Your task to perform on an android device: Open Google Maps and go to "Timeline" Image 0: 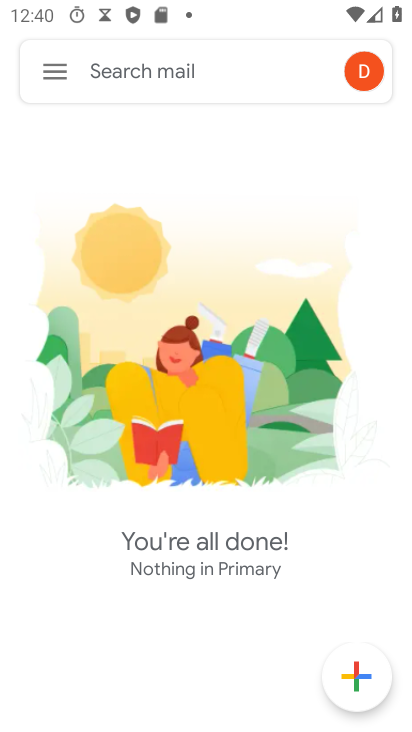
Step 0: click (56, 64)
Your task to perform on an android device: Open Google Maps and go to "Timeline" Image 1: 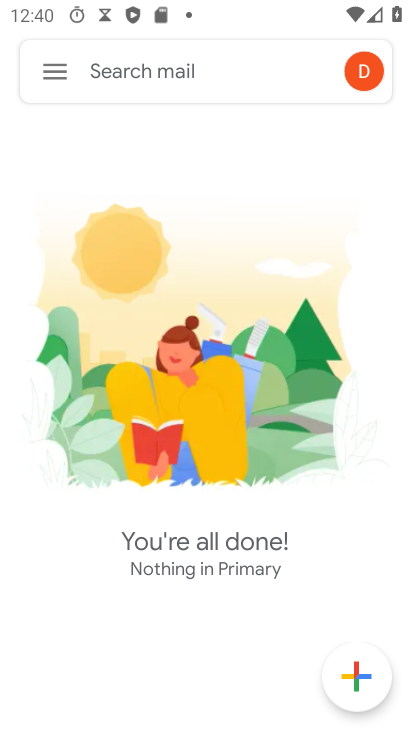
Step 1: click (56, 64)
Your task to perform on an android device: Open Google Maps and go to "Timeline" Image 2: 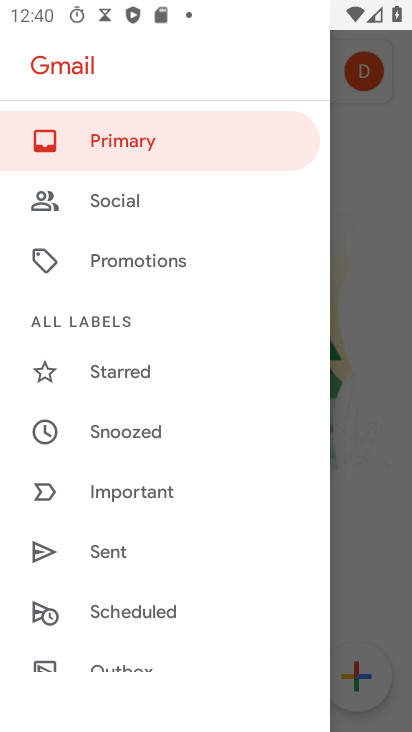
Step 2: click (341, 392)
Your task to perform on an android device: Open Google Maps and go to "Timeline" Image 3: 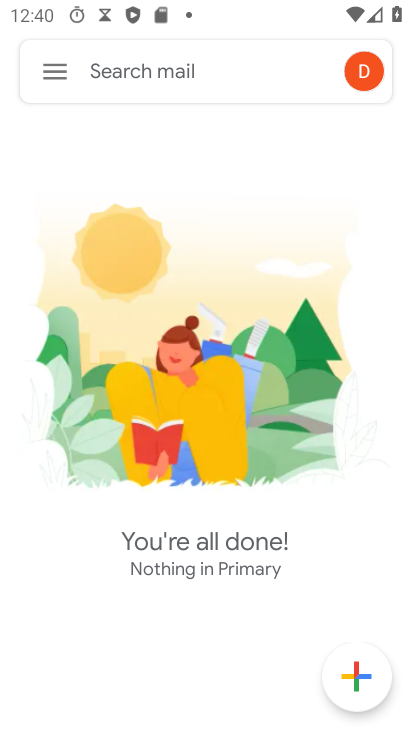
Step 3: click (343, 376)
Your task to perform on an android device: Open Google Maps and go to "Timeline" Image 4: 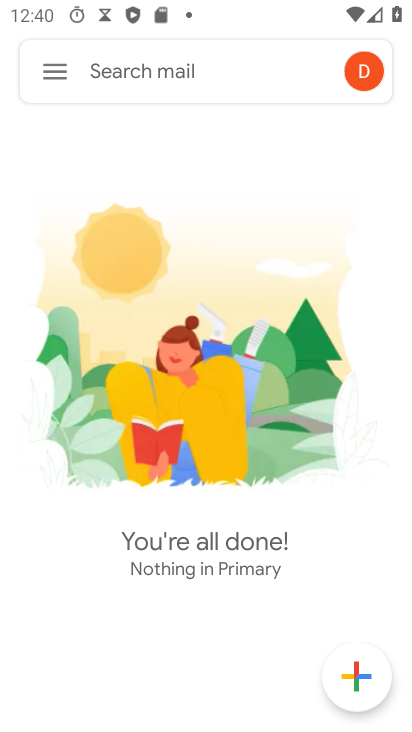
Step 4: press home button
Your task to perform on an android device: Open Google Maps and go to "Timeline" Image 5: 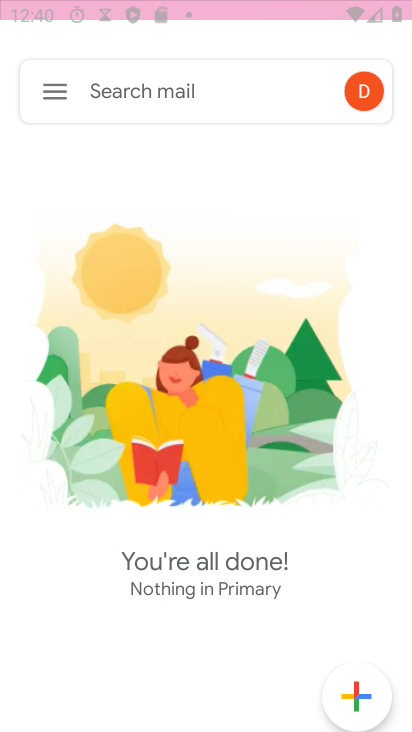
Step 5: press home button
Your task to perform on an android device: Open Google Maps and go to "Timeline" Image 6: 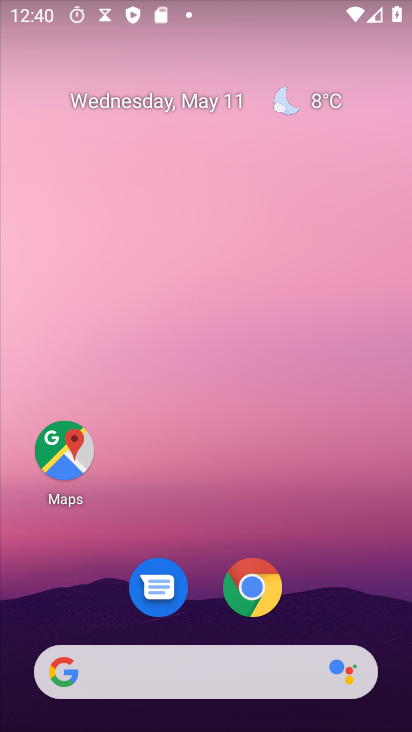
Step 6: drag from (336, 613) to (214, 93)
Your task to perform on an android device: Open Google Maps and go to "Timeline" Image 7: 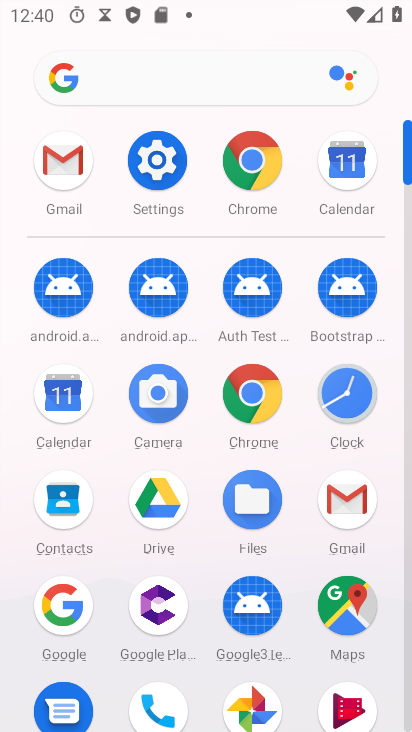
Step 7: click (346, 606)
Your task to perform on an android device: Open Google Maps and go to "Timeline" Image 8: 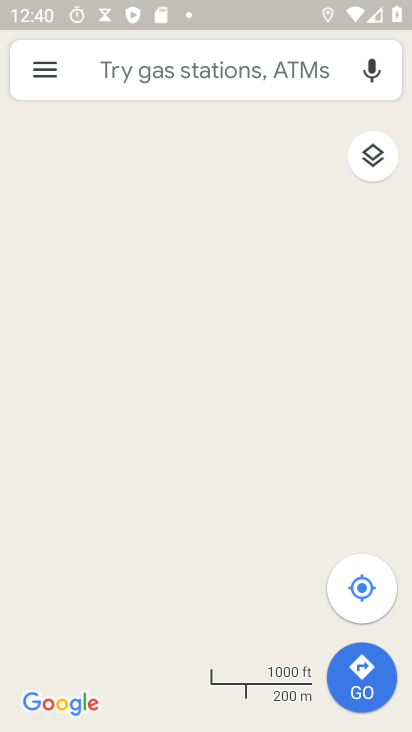
Step 8: click (39, 78)
Your task to perform on an android device: Open Google Maps and go to "Timeline" Image 9: 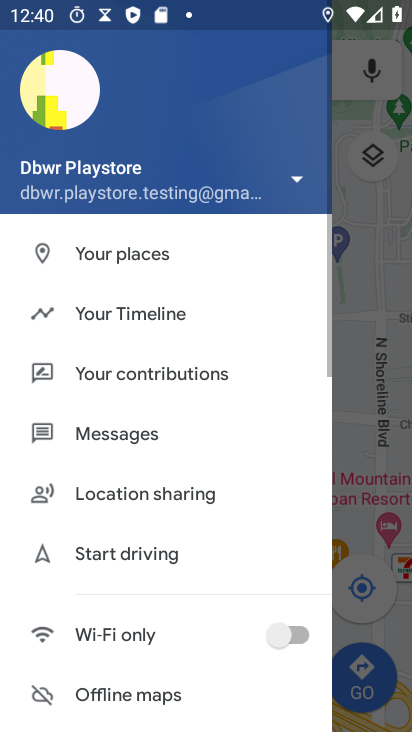
Step 9: click (131, 320)
Your task to perform on an android device: Open Google Maps and go to "Timeline" Image 10: 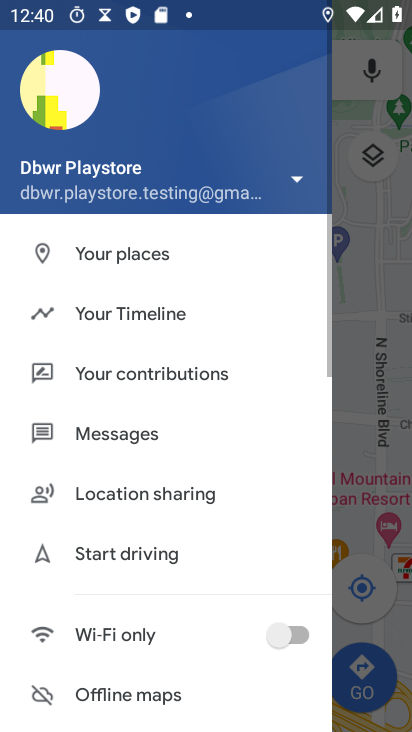
Step 10: click (154, 428)
Your task to perform on an android device: Open Google Maps and go to "Timeline" Image 11: 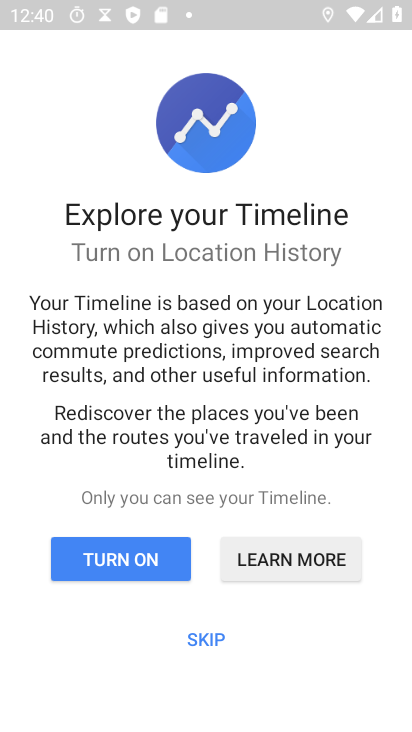
Step 11: click (140, 556)
Your task to perform on an android device: Open Google Maps and go to "Timeline" Image 12: 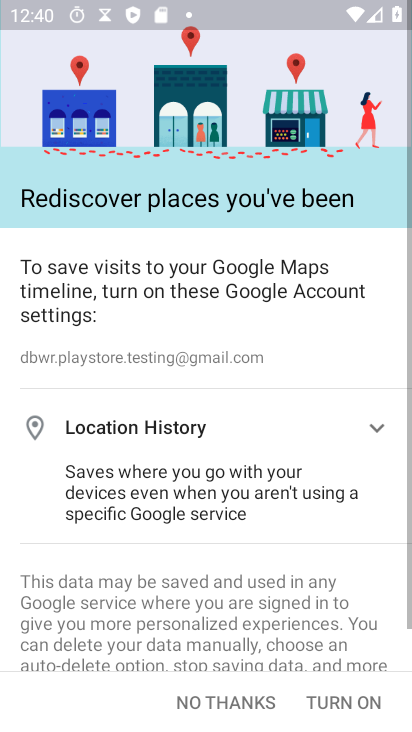
Step 12: task complete